Your task to perform on an android device: Open Google Chrome and open the bookmarks view Image 0: 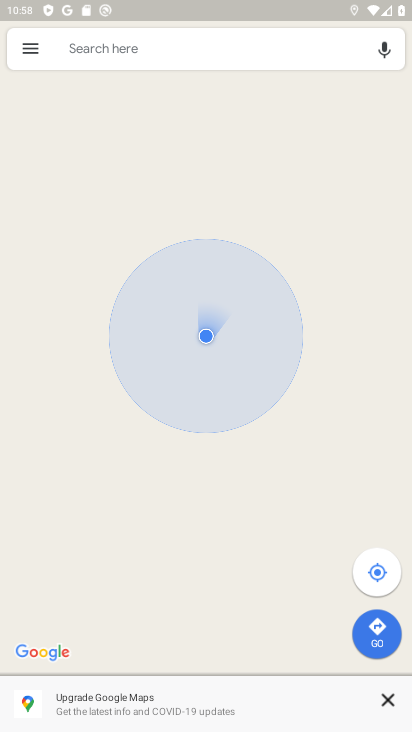
Step 0: press home button
Your task to perform on an android device: Open Google Chrome and open the bookmarks view Image 1: 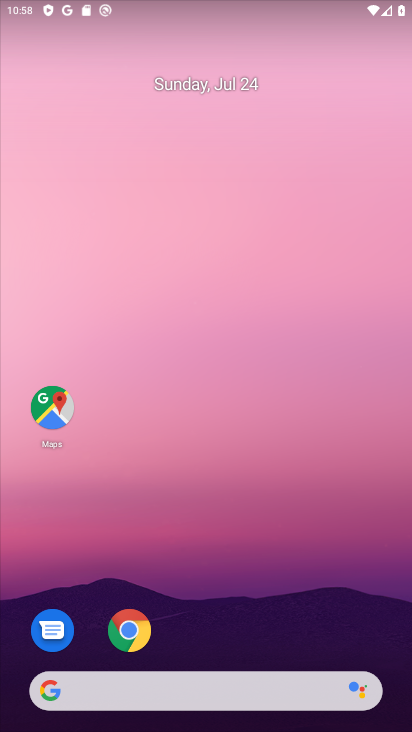
Step 1: click (128, 627)
Your task to perform on an android device: Open Google Chrome and open the bookmarks view Image 2: 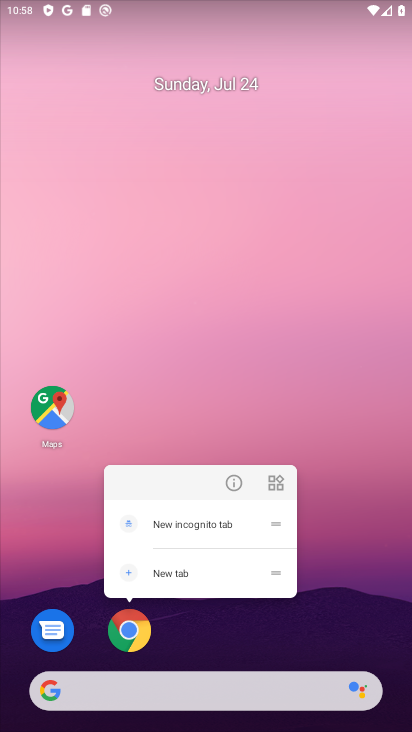
Step 2: click (143, 639)
Your task to perform on an android device: Open Google Chrome and open the bookmarks view Image 3: 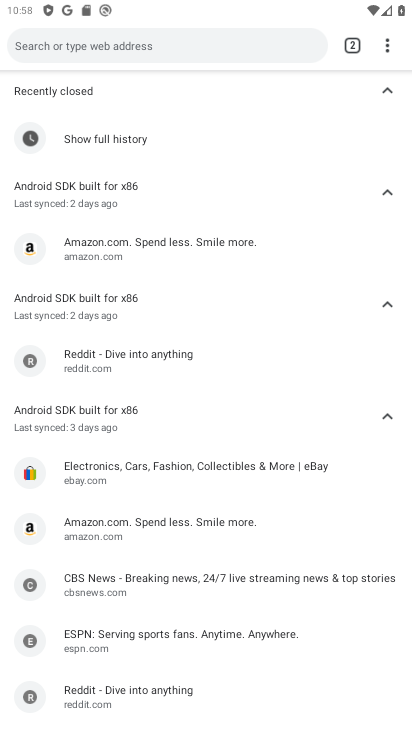
Step 3: click (385, 46)
Your task to perform on an android device: Open Google Chrome and open the bookmarks view Image 4: 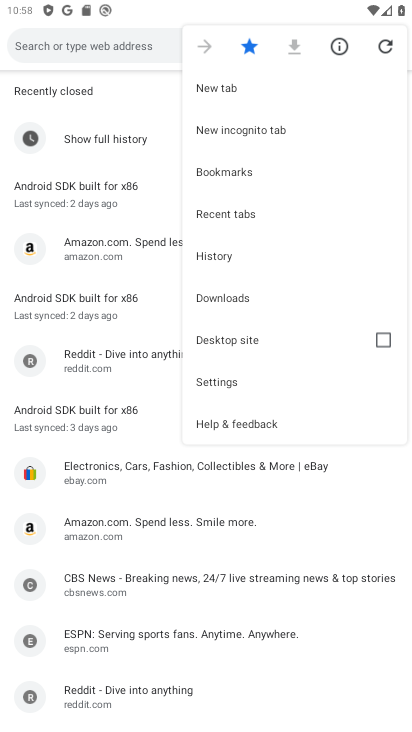
Step 4: click (232, 168)
Your task to perform on an android device: Open Google Chrome and open the bookmarks view Image 5: 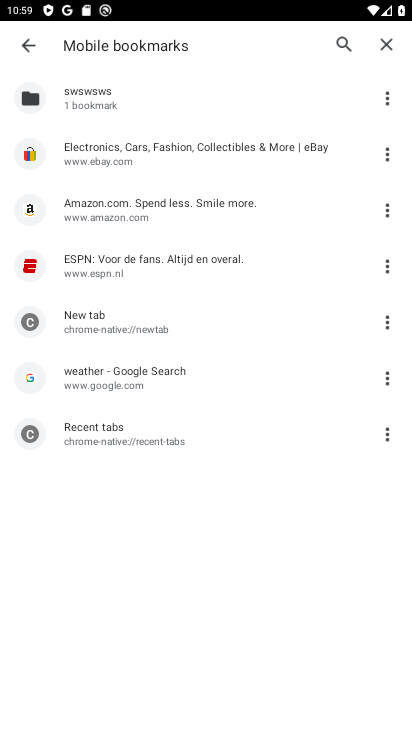
Step 5: task complete